Your task to perform on an android device: Open accessibility settings Image 0: 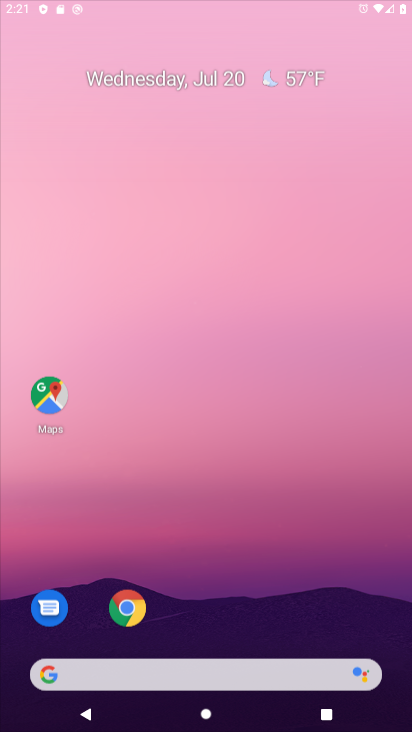
Step 0: press home button
Your task to perform on an android device: Open accessibility settings Image 1: 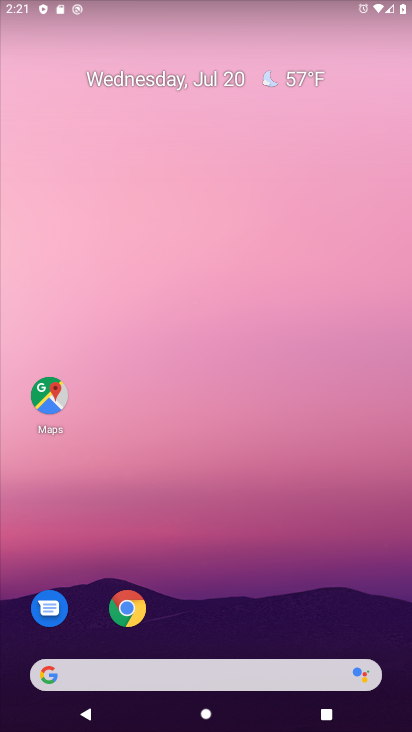
Step 1: drag from (215, 617) to (12, 142)
Your task to perform on an android device: Open accessibility settings Image 2: 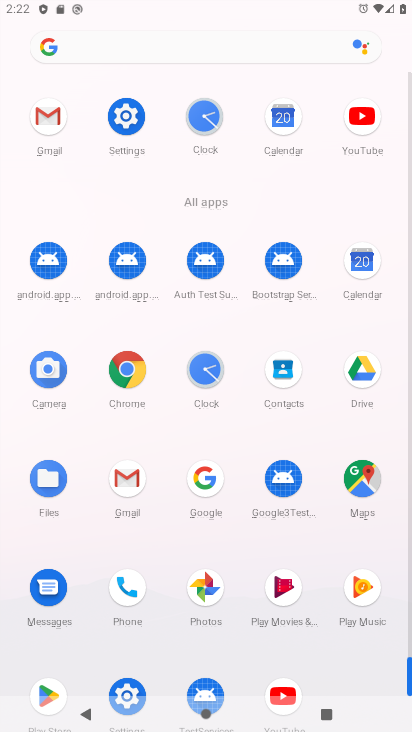
Step 2: click (119, 142)
Your task to perform on an android device: Open accessibility settings Image 3: 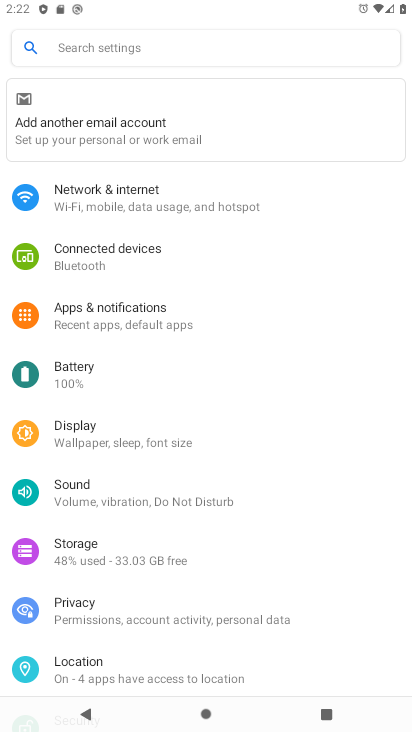
Step 3: drag from (195, 534) to (137, 268)
Your task to perform on an android device: Open accessibility settings Image 4: 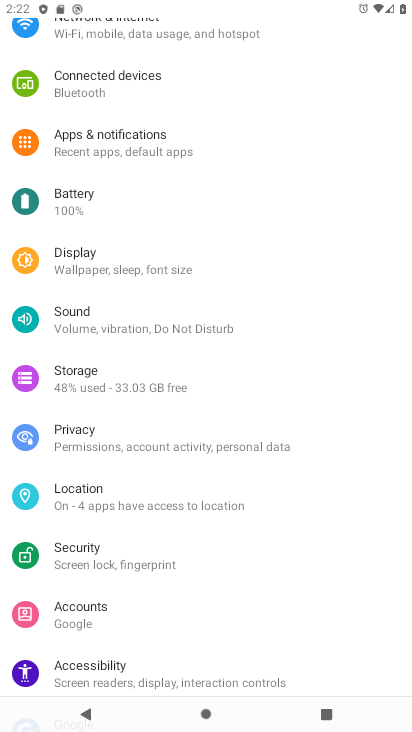
Step 4: click (95, 673)
Your task to perform on an android device: Open accessibility settings Image 5: 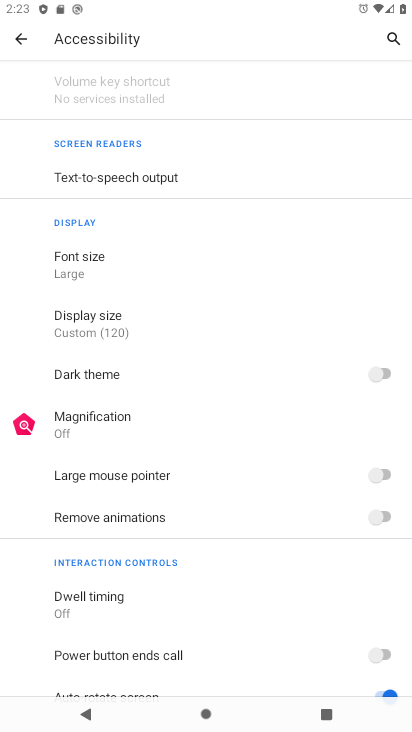
Step 5: task complete